Your task to perform on an android device: What's the weather? Image 0: 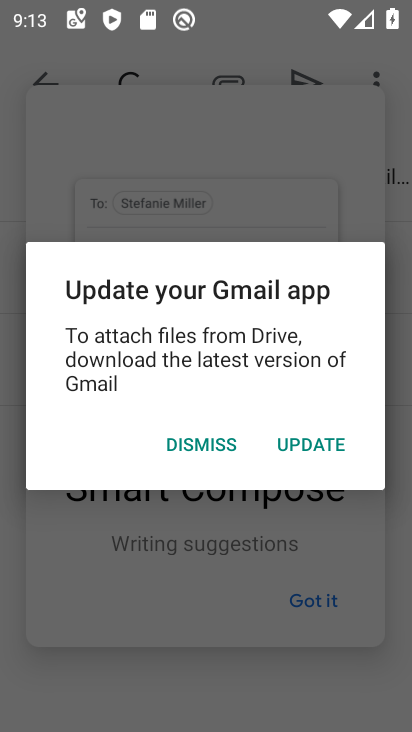
Step 0: press home button
Your task to perform on an android device: What's the weather? Image 1: 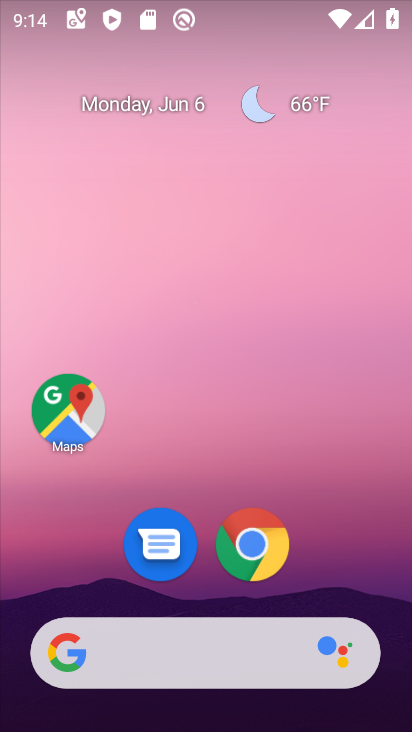
Step 1: click (249, 542)
Your task to perform on an android device: What's the weather? Image 2: 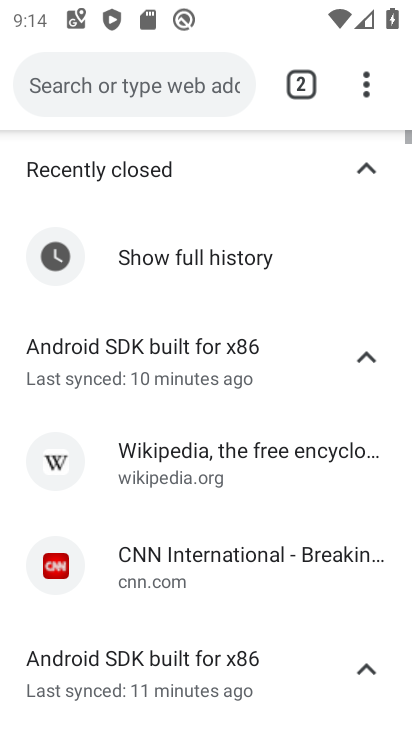
Step 2: click (123, 83)
Your task to perform on an android device: What's the weather? Image 3: 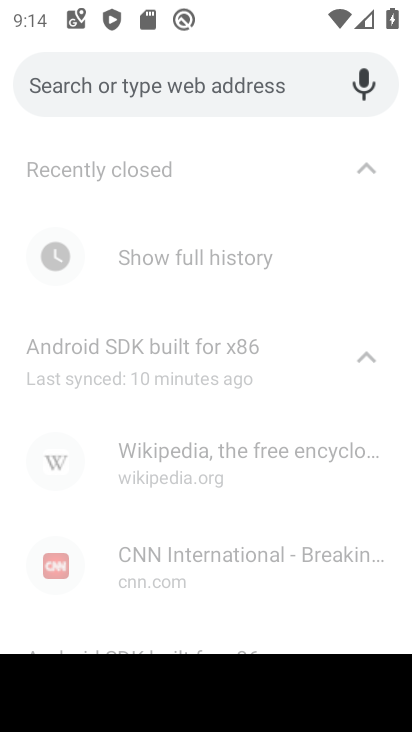
Step 3: type "What's the weather today?"
Your task to perform on an android device: What's the weather? Image 4: 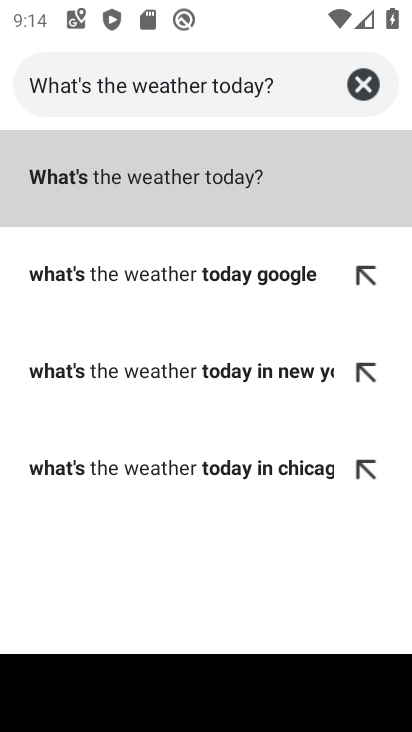
Step 4: click (194, 211)
Your task to perform on an android device: What's the weather? Image 5: 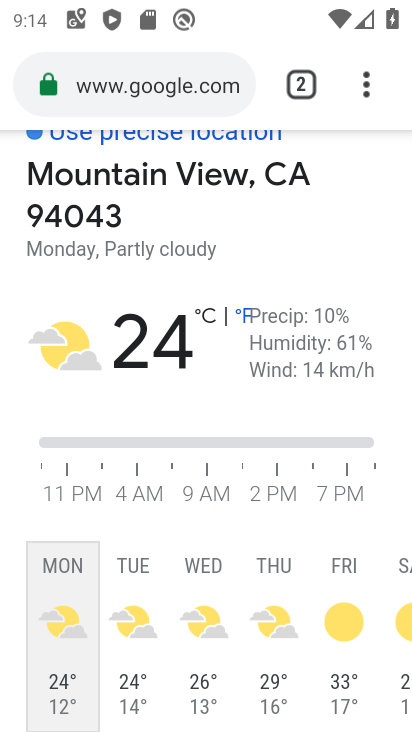
Step 5: task complete